Your task to perform on an android device: allow cookies in the chrome app Image 0: 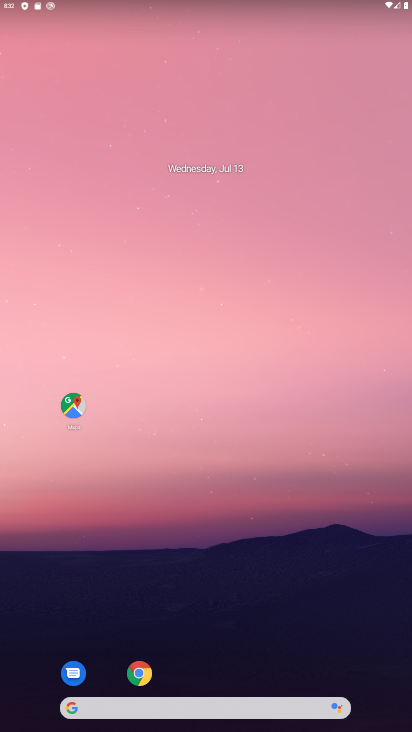
Step 0: click (143, 679)
Your task to perform on an android device: allow cookies in the chrome app Image 1: 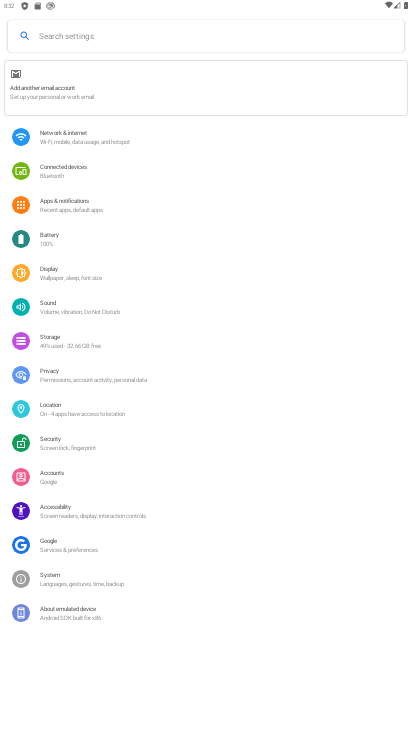
Step 1: press home button
Your task to perform on an android device: allow cookies in the chrome app Image 2: 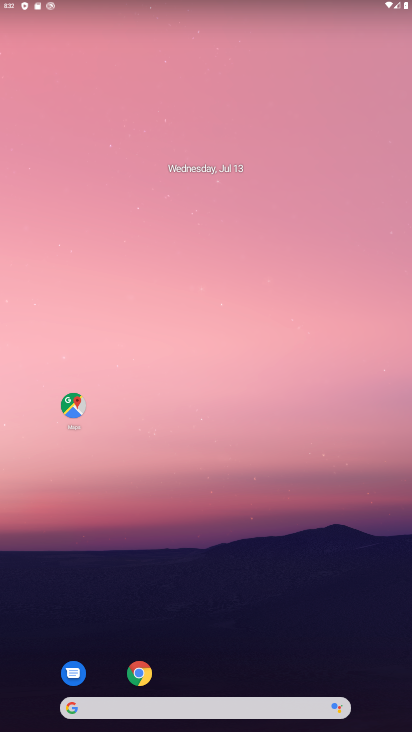
Step 2: click (141, 679)
Your task to perform on an android device: allow cookies in the chrome app Image 3: 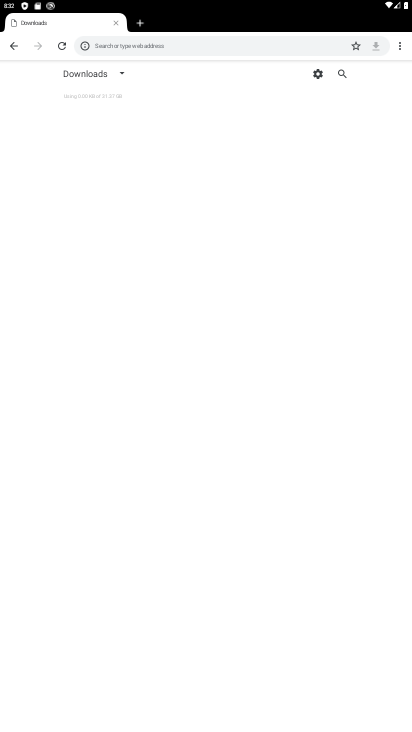
Step 3: click (394, 45)
Your task to perform on an android device: allow cookies in the chrome app Image 4: 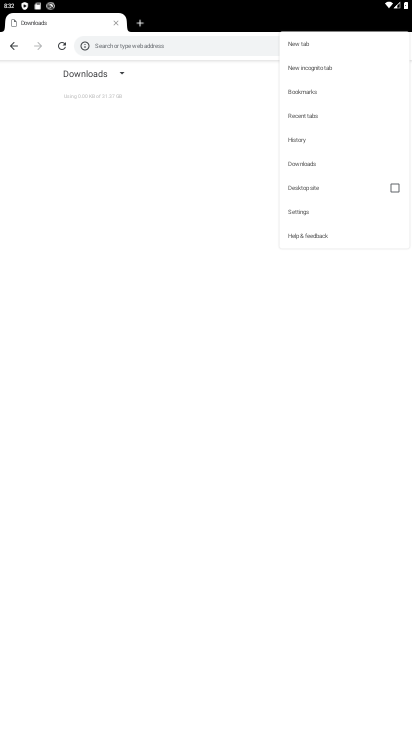
Step 4: click (313, 220)
Your task to perform on an android device: allow cookies in the chrome app Image 5: 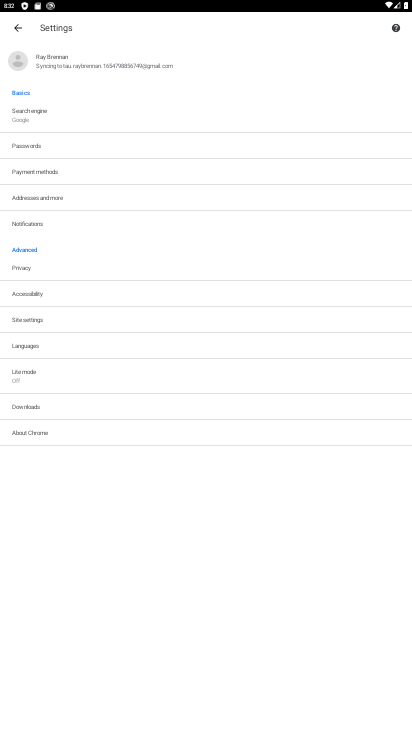
Step 5: click (57, 322)
Your task to perform on an android device: allow cookies in the chrome app Image 6: 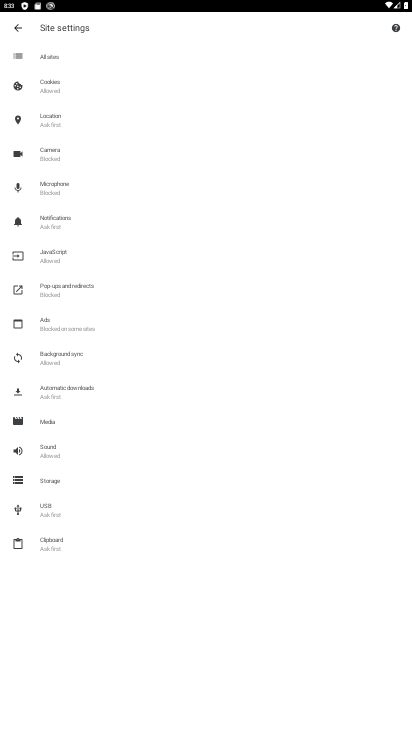
Step 6: click (58, 93)
Your task to perform on an android device: allow cookies in the chrome app Image 7: 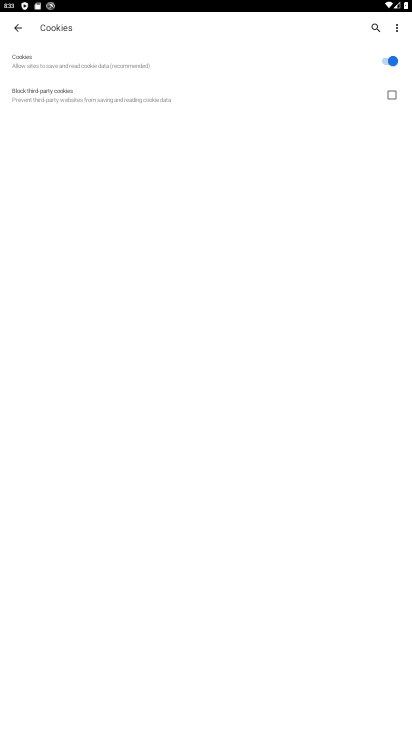
Step 7: task complete